Your task to perform on an android device: change alarm snooze length Image 0: 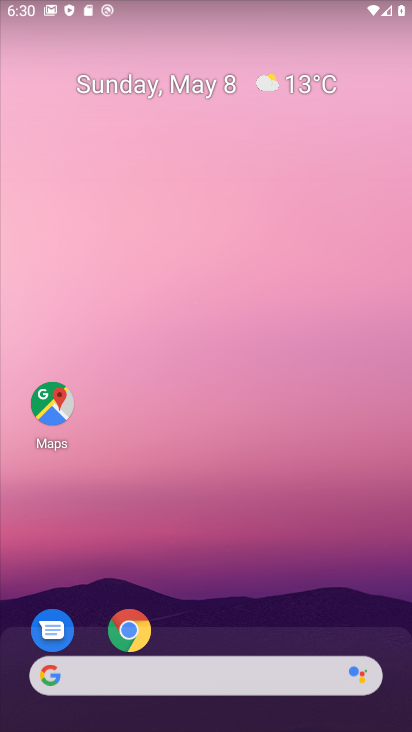
Step 0: drag from (241, 509) to (226, 23)
Your task to perform on an android device: change alarm snooze length Image 1: 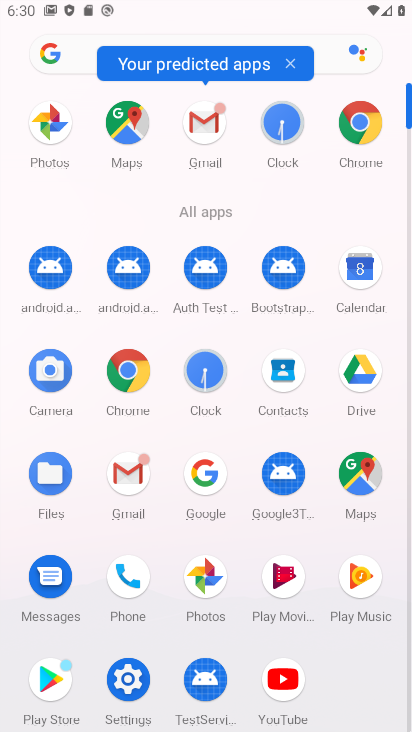
Step 1: click (205, 372)
Your task to perform on an android device: change alarm snooze length Image 2: 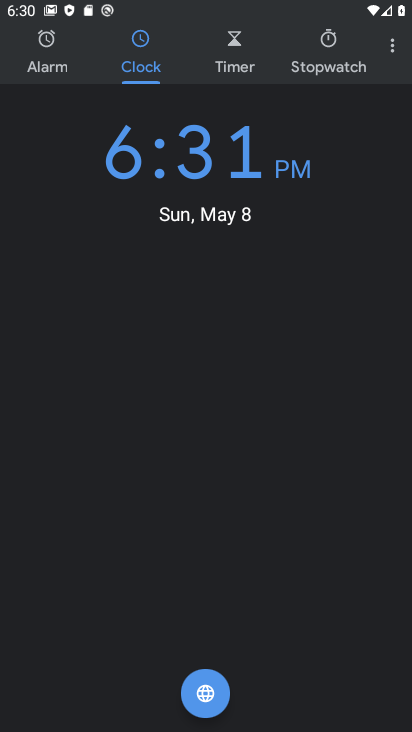
Step 2: click (393, 51)
Your task to perform on an android device: change alarm snooze length Image 3: 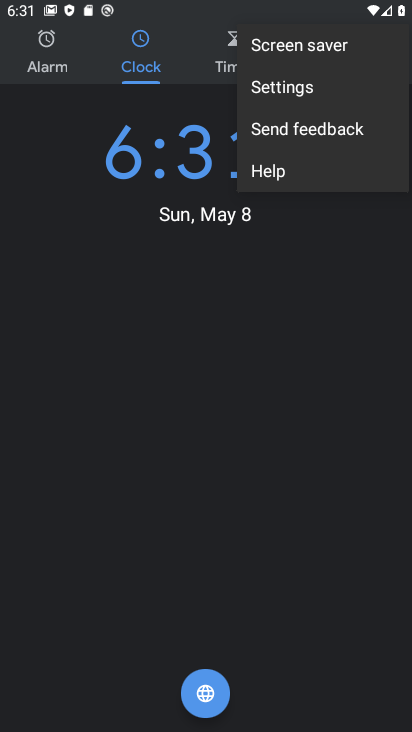
Step 3: click (294, 83)
Your task to perform on an android device: change alarm snooze length Image 4: 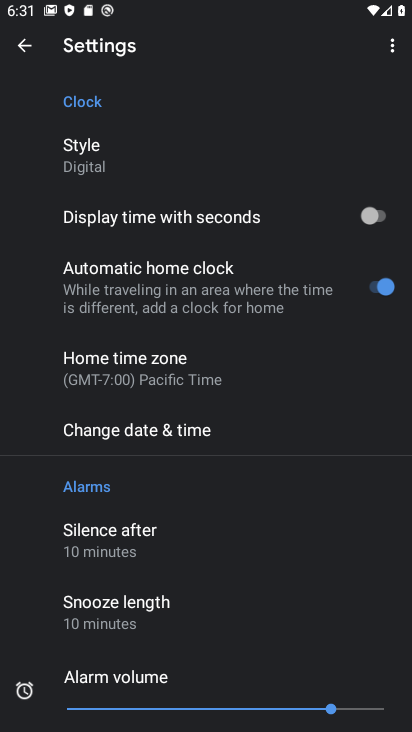
Step 4: drag from (292, 567) to (275, 341)
Your task to perform on an android device: change alarm snooze length Image 5: 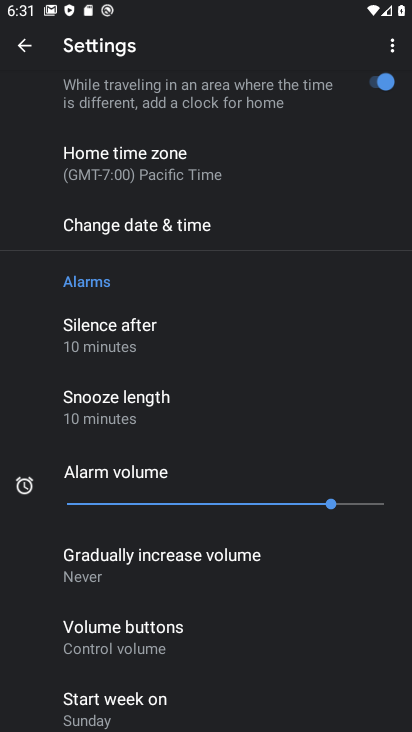
Step 5: click (104, 405)
Your task to perform on an android device: change alarm snooze length Image 6: 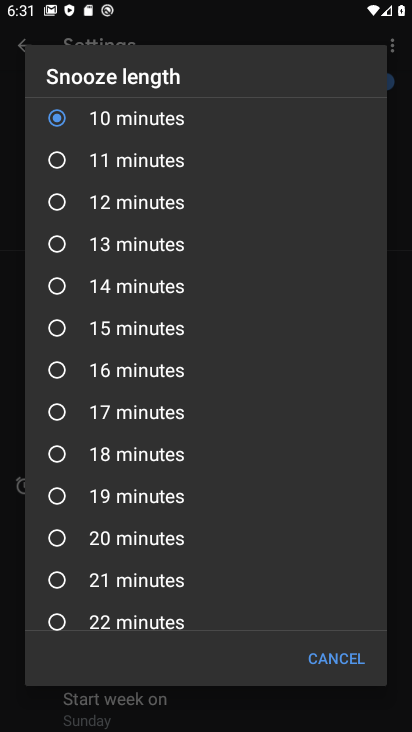
Step 6: click (52, 329)
Your task to perform on an android device: change alarm snooze length Image 7: 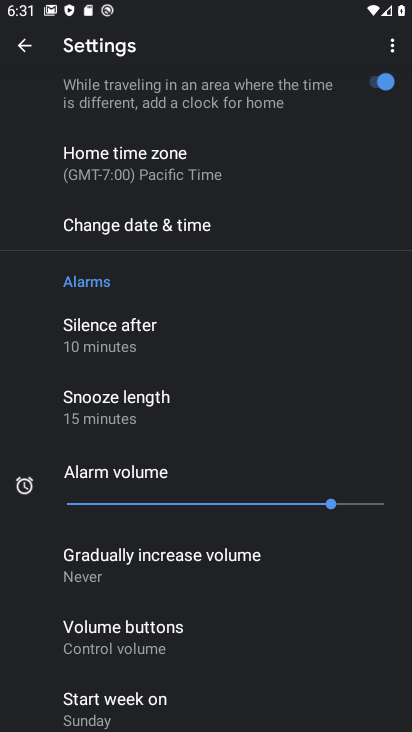
Step 7: task complete